Your task to perform on an android device: Turn on the flashlight Image 0: 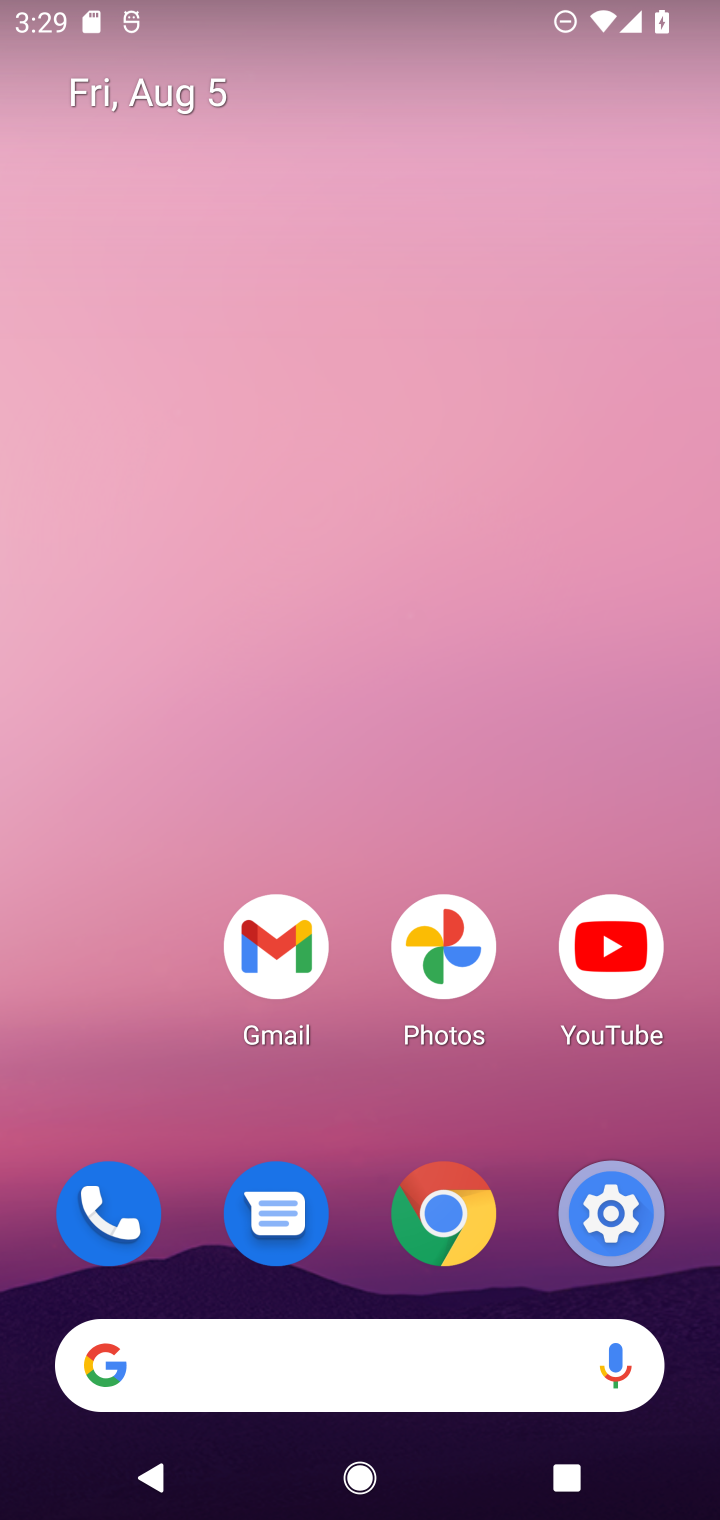
Step 0: click (607, 1205)
Your task to perform on an android device: Turn on the flashlight Image 1: 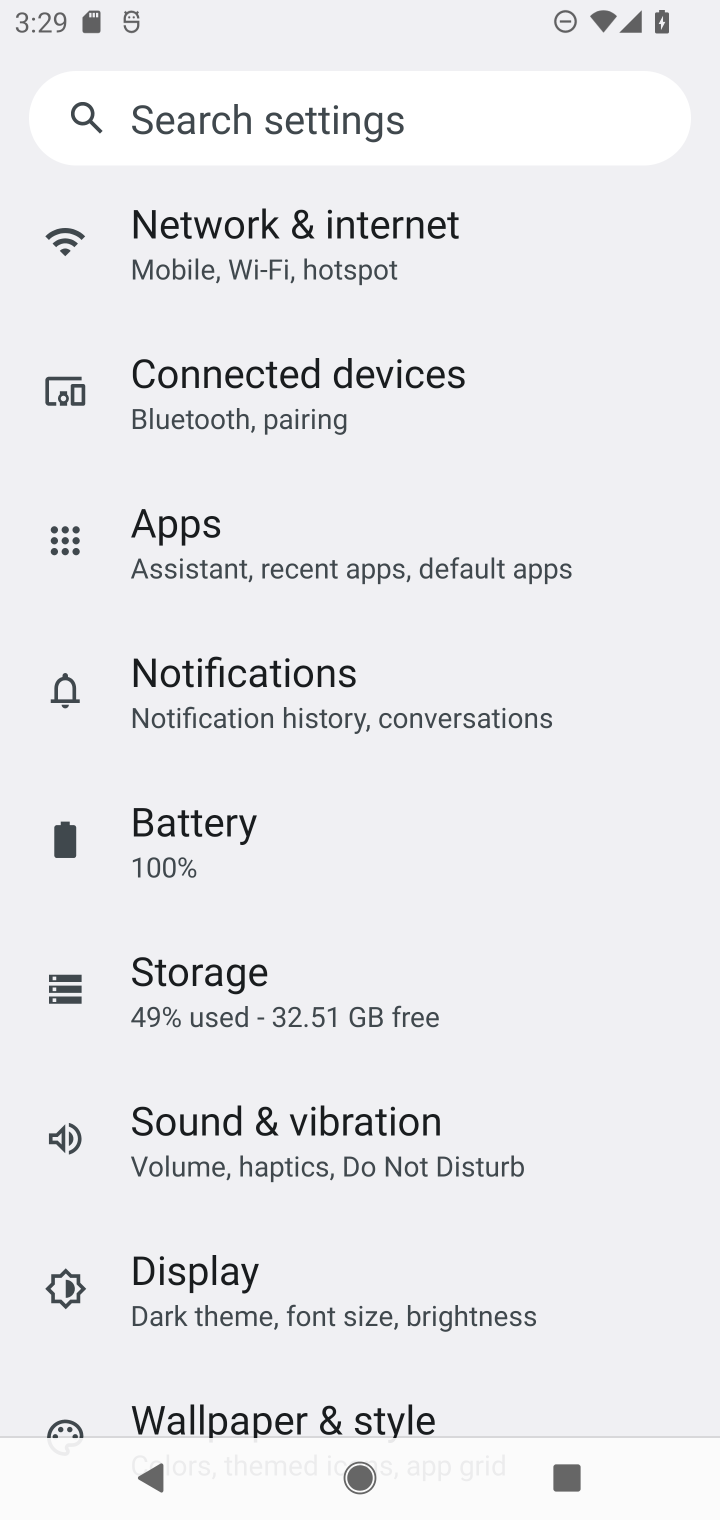
Step 1: click (461, 131)
Your task to perform on an android device: Turn on the flashlight Image 2: 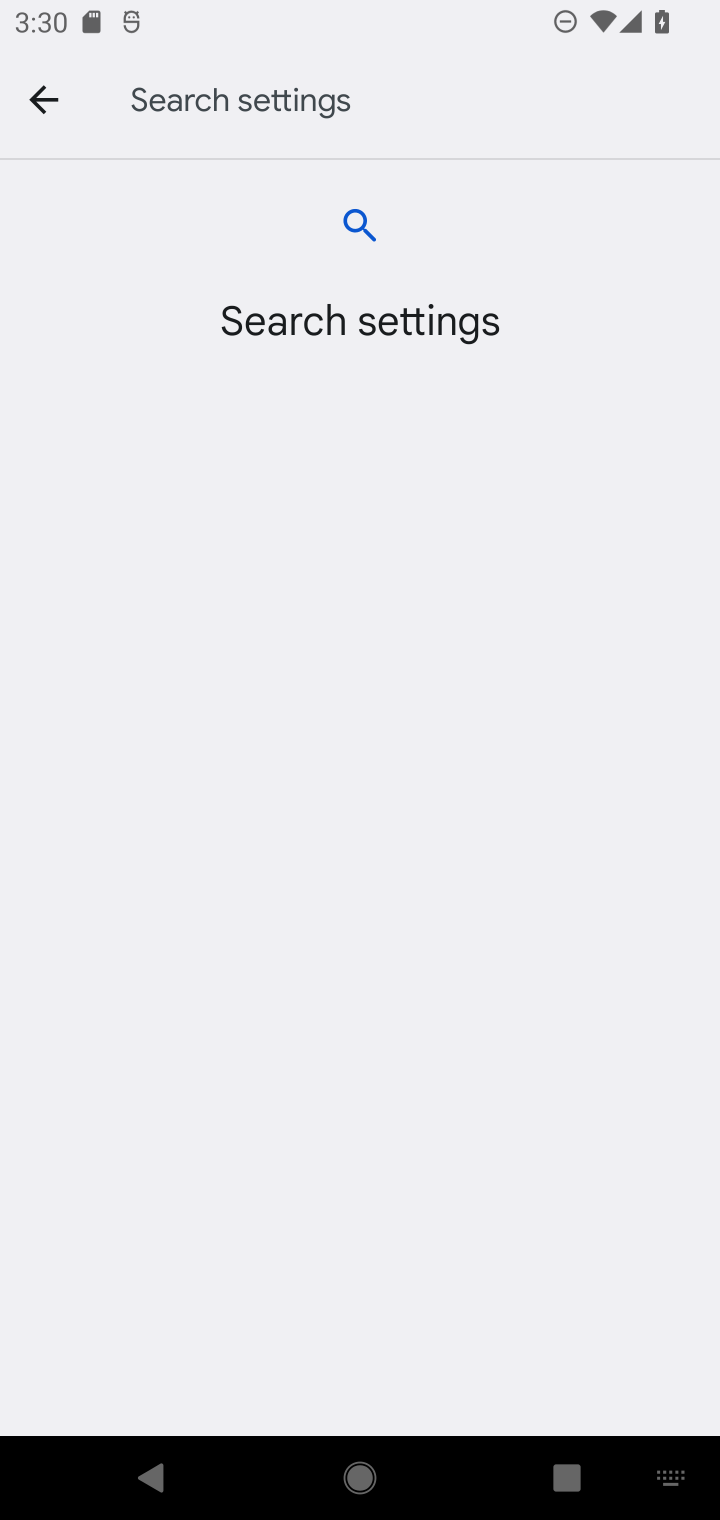
Step 2: type "Flashlight"
Your task to perform on an android device: Turn on the flashlight Image 3: 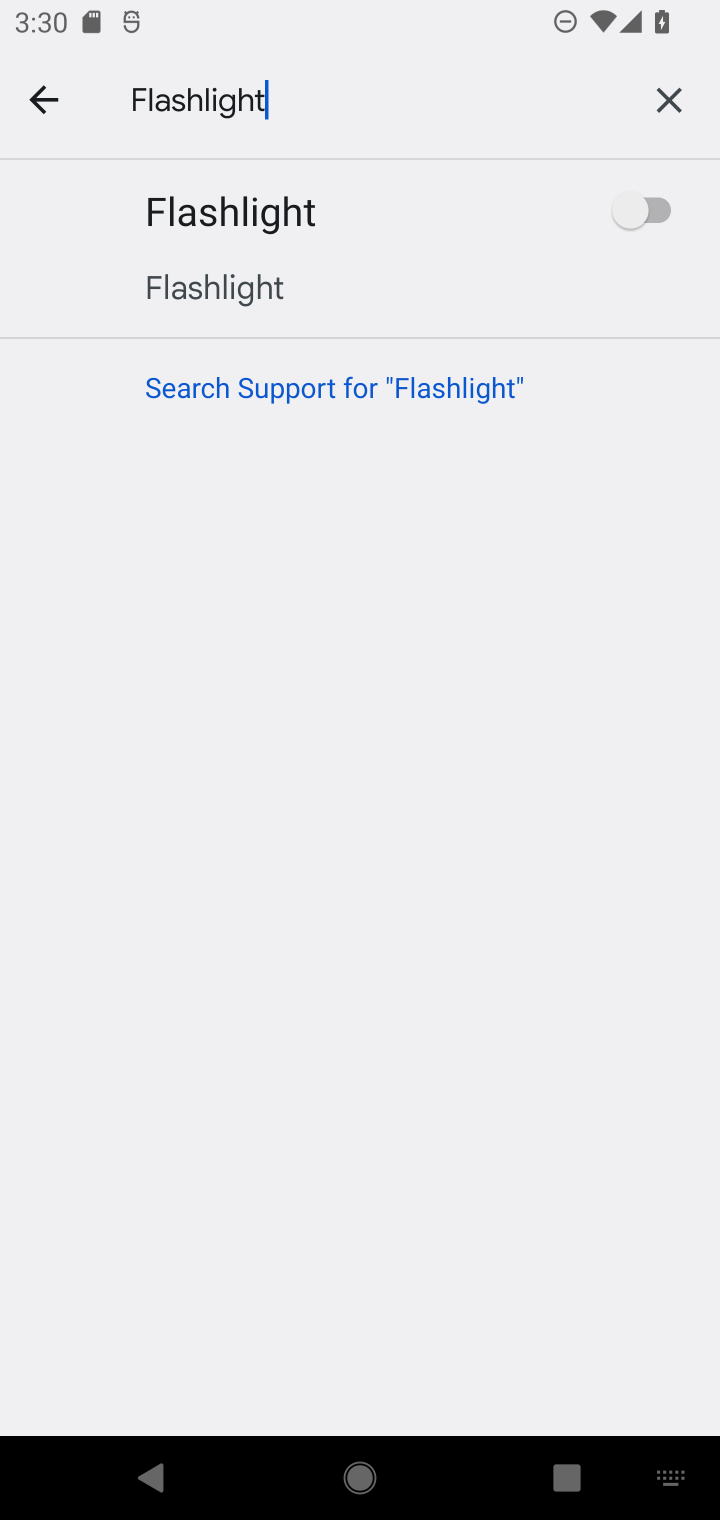
Step 3: click (245, 378)
Your task to perform on an android device: Turn on the flashlight Image 4: 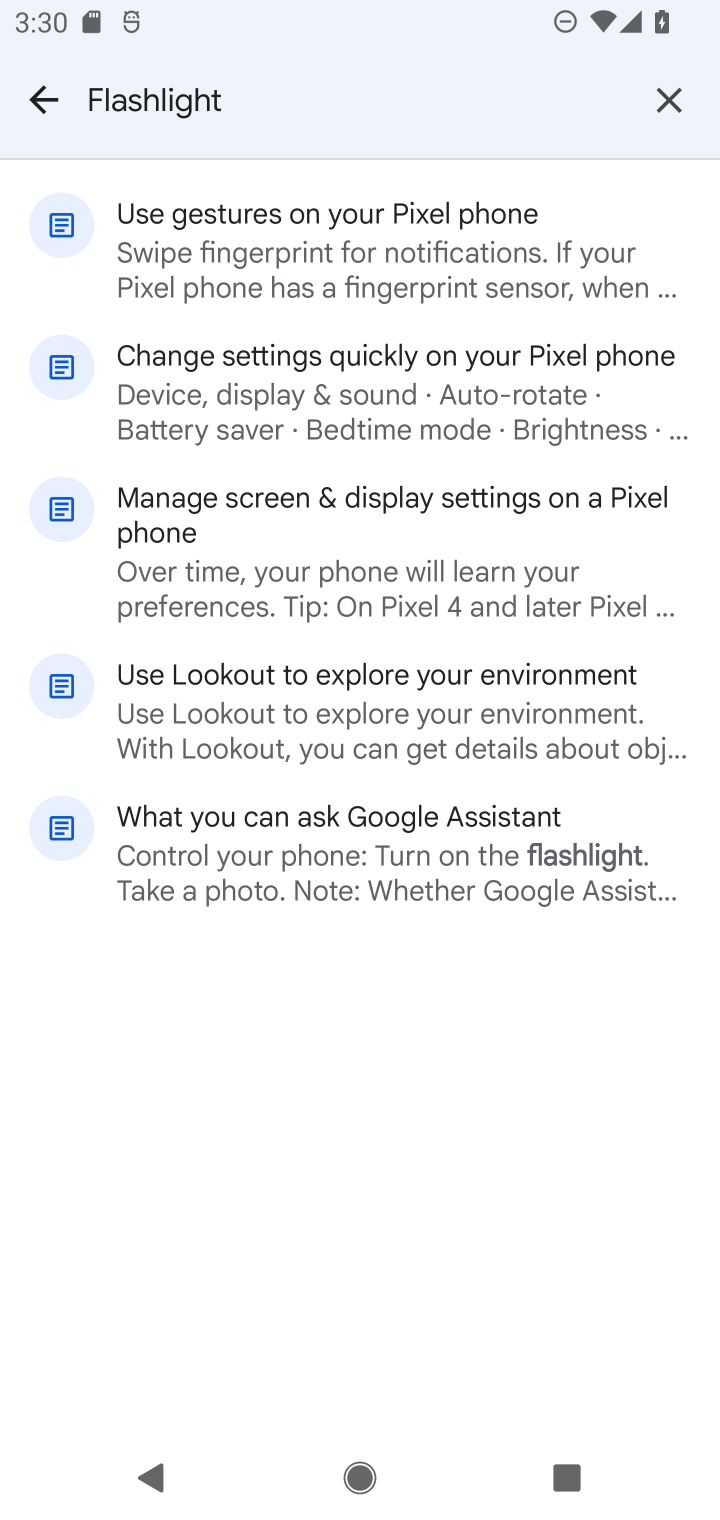
Step 4: click (40, 93)
Your task to perform on an android device: Turn on the flashlight Image 5: 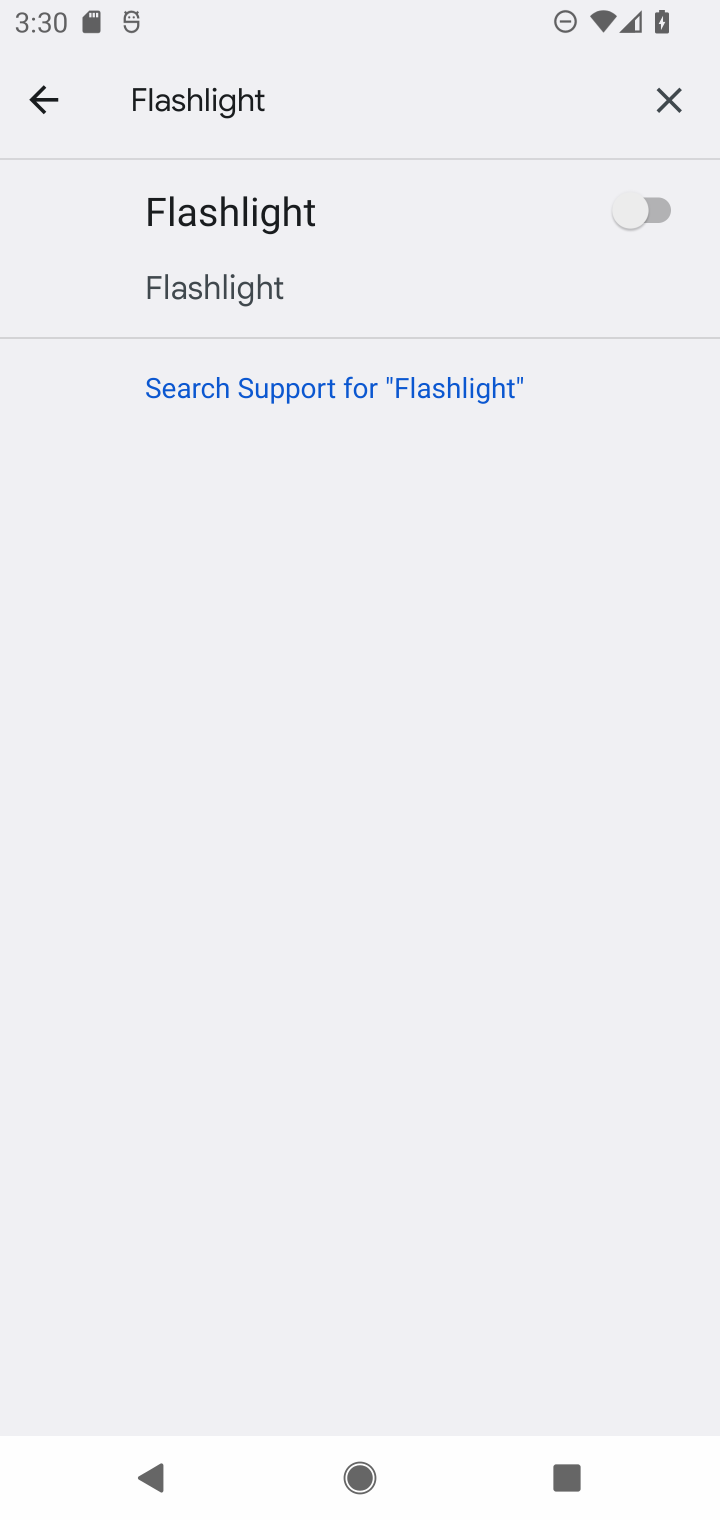
Step 5: click (640, 204)
Your task to perform on an android device: Turn on the flashlight Image 6: 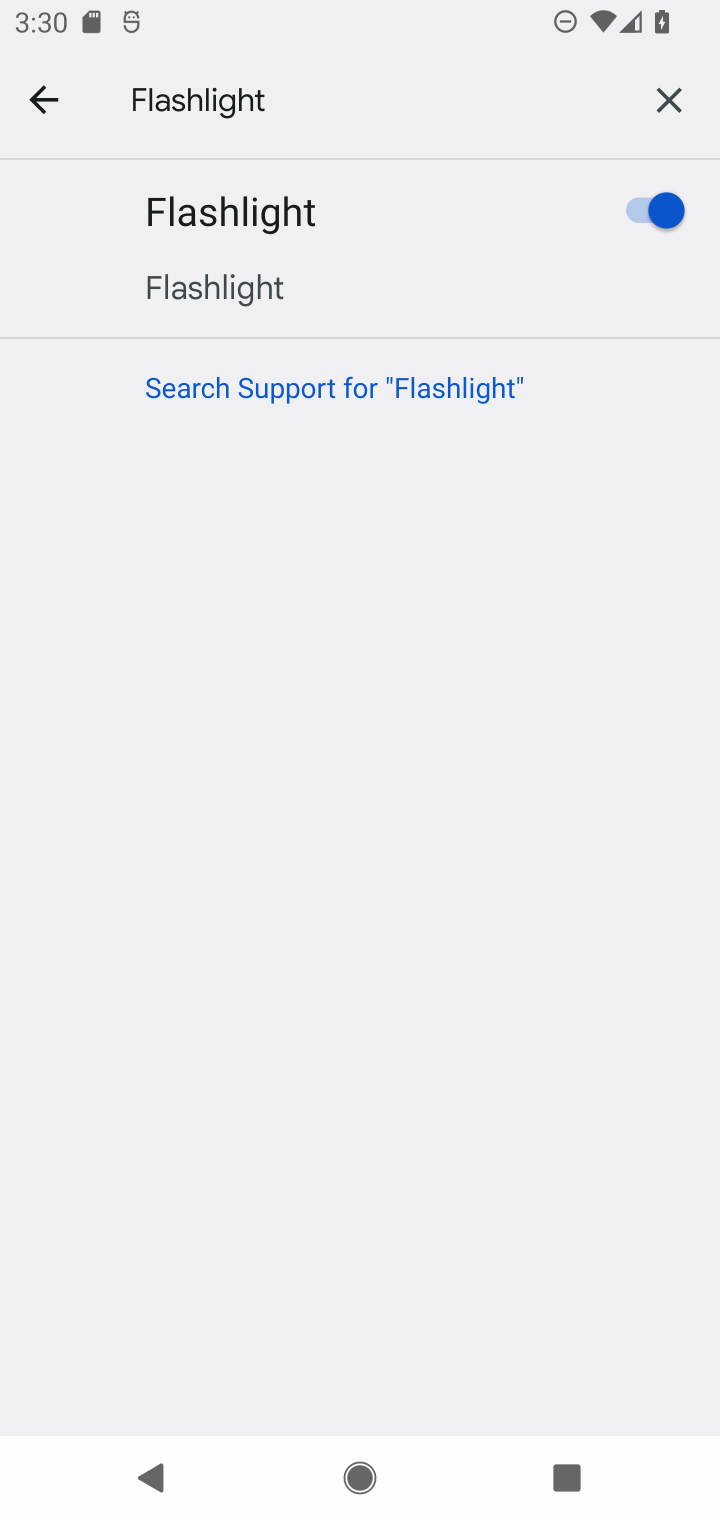
Step 6: task complete